Your task to perform on an android device: Go to network settings Image 0: 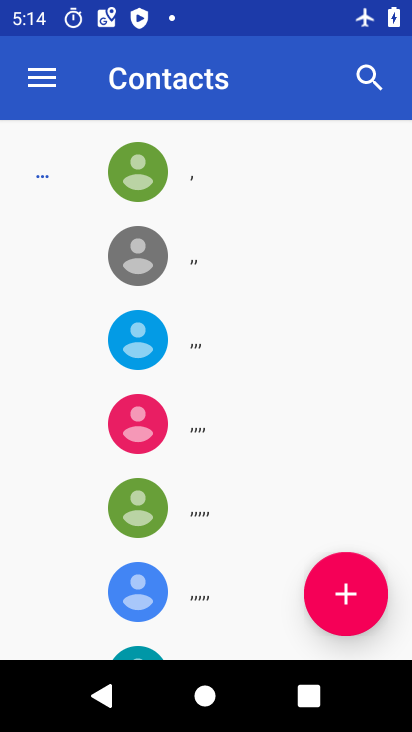
Step 0: press home button
Your task to perform on an android device: Go to network settings Image 1: 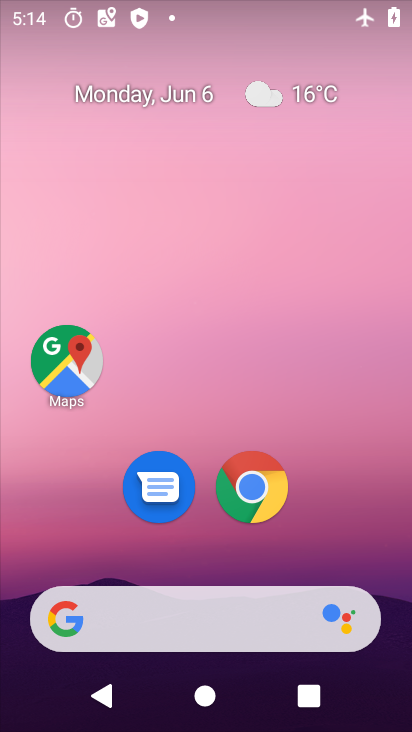
Step 1: drag from (359, 506) to (342, 85)
Your task to perform on an android device: Go to network settings Image 2: 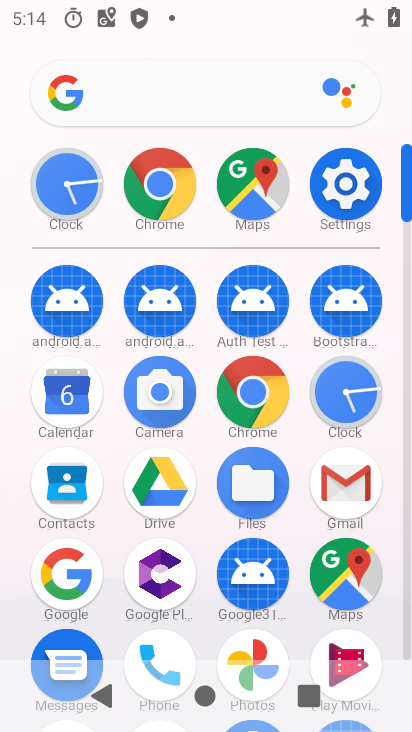
Step 2: click (360, 177)
Your task to perform on an android device: Go to network settings Image 3: 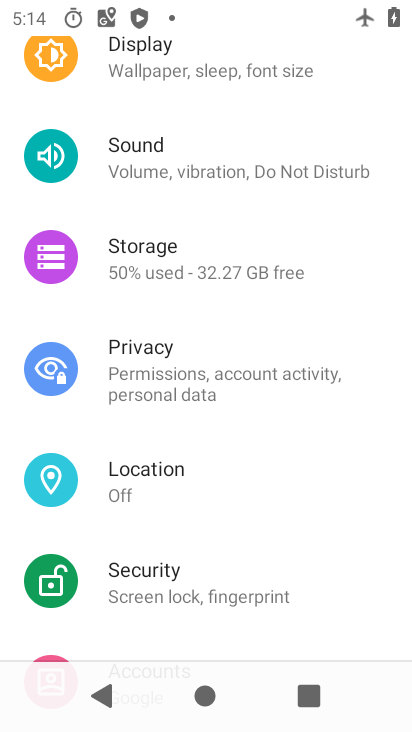
Step 3: drag from (258, 107) to (227, 554)
Your task to perform on an android device: Go to network settings Image 4: 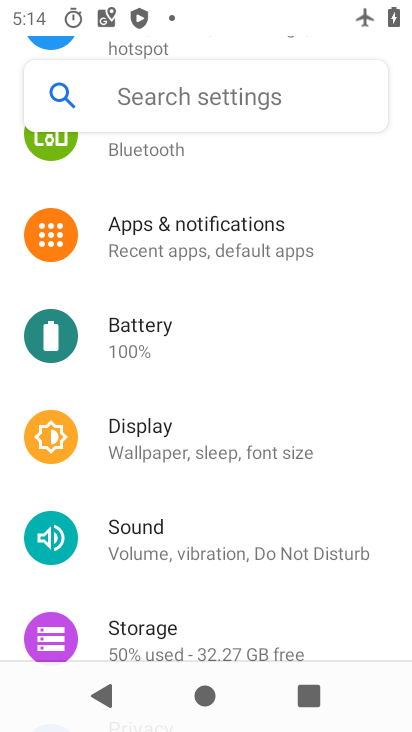
Step 4: click (215, 621)
Your task to perform on an android device: Go to network settings Image 5: 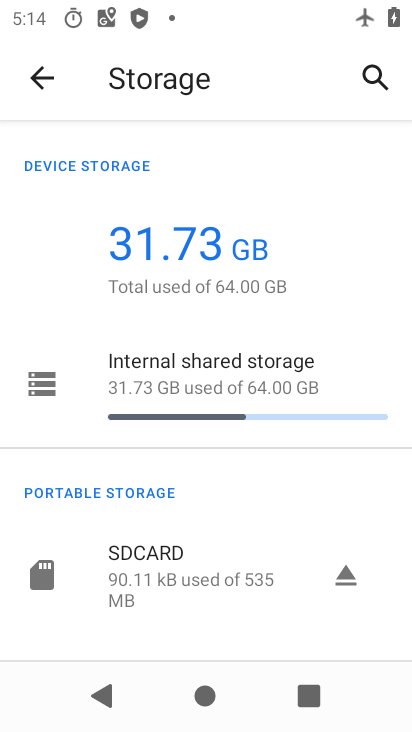
Step 5: click (44, 60)
Your task to perform on an android device: Go to network settings Image 6: 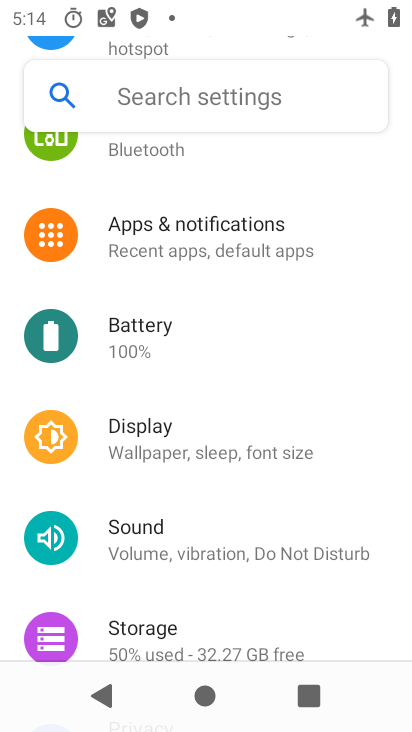
Step 6: drag from (216, 292) to (203, 701)
Your task to perform on an android device: Go to network settings Image 7: 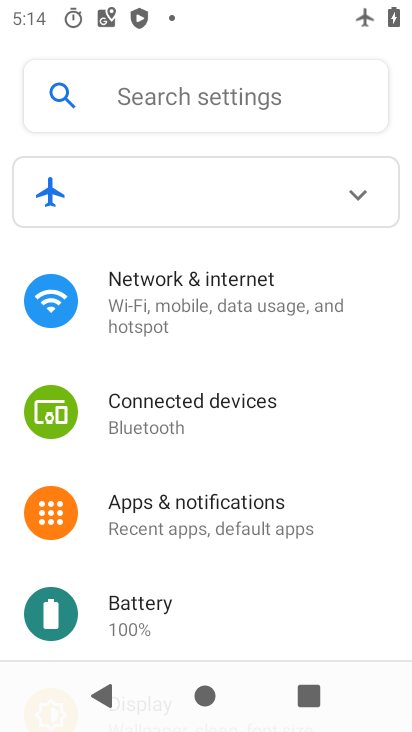
Step 7: click (240, 316)
Your task to perform on an android device: Go to network settings Image 8: 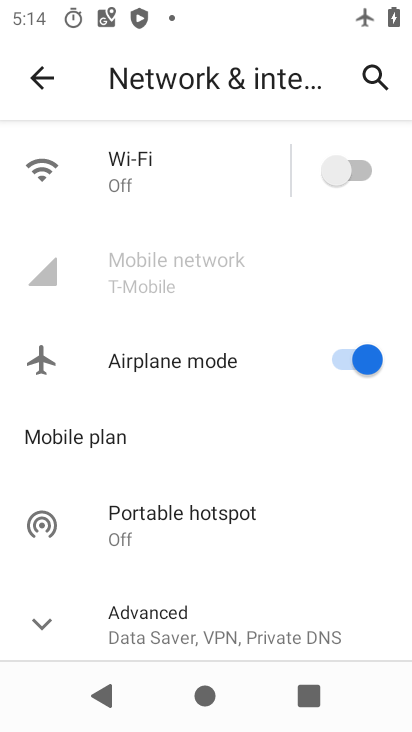
Step 8: task complete